Your task to perform on an android device: What's the news in Barbados? Image 0: 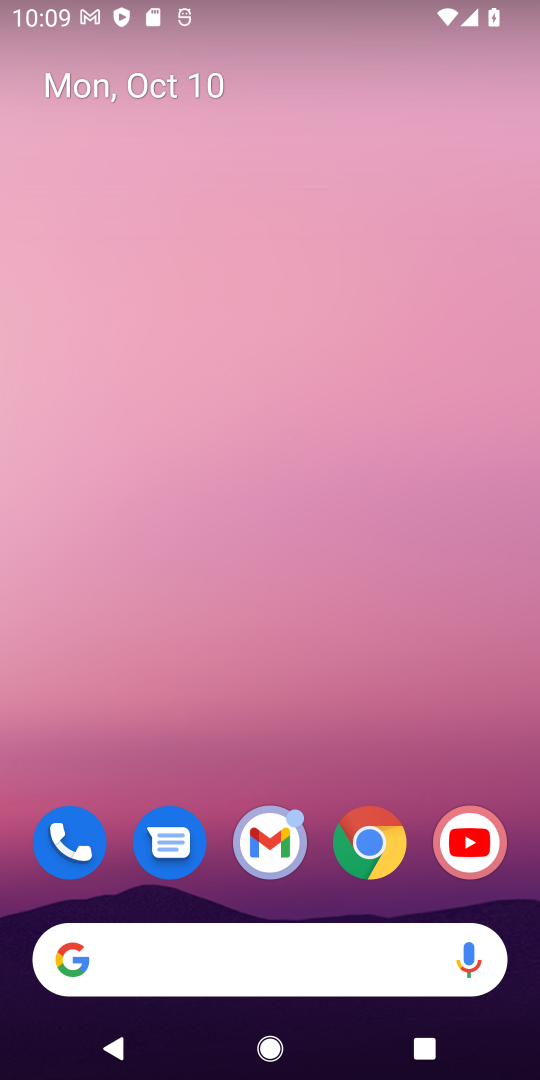
Step 0: click (192, 961)
Your task to perform on an android device: What's the news in Barbados? Image 1: 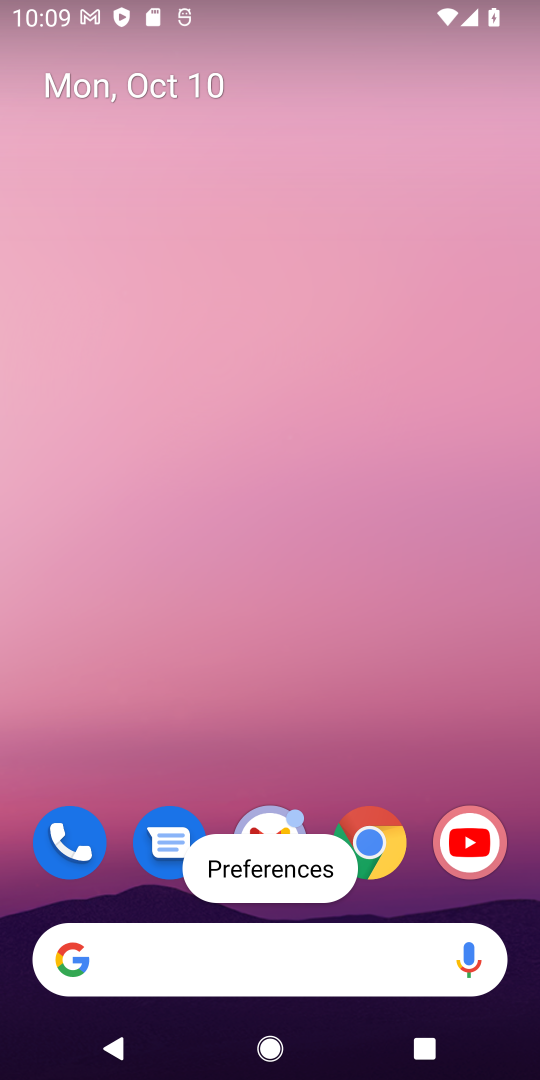
Step 1: click (192, 961)
Your task to perform on an android device: What's the news in Barbados? Image 2: 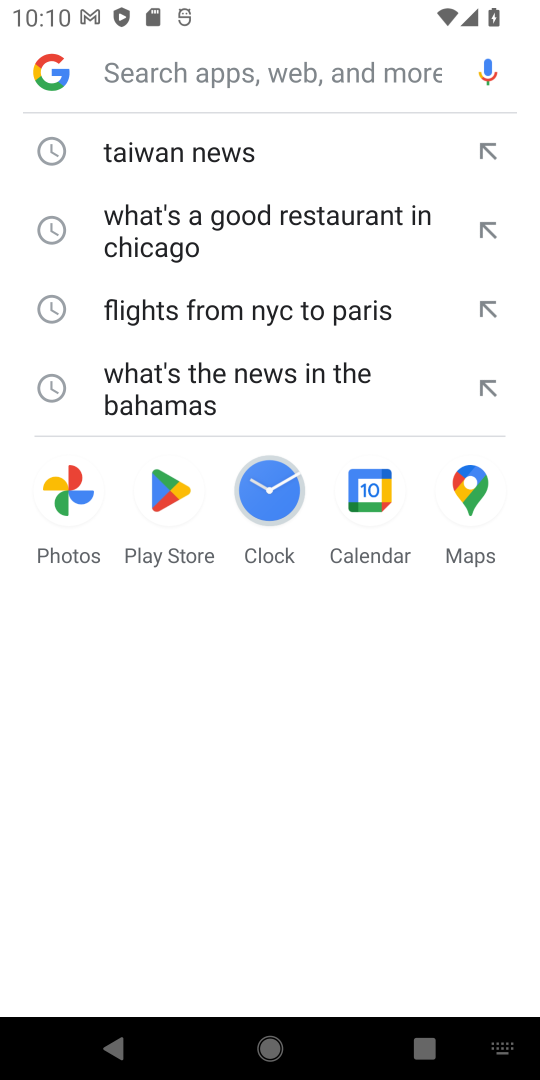
Step 2: type "barbados news"
Your task to perform on an android device: What's the news in Barbados? Image 3: 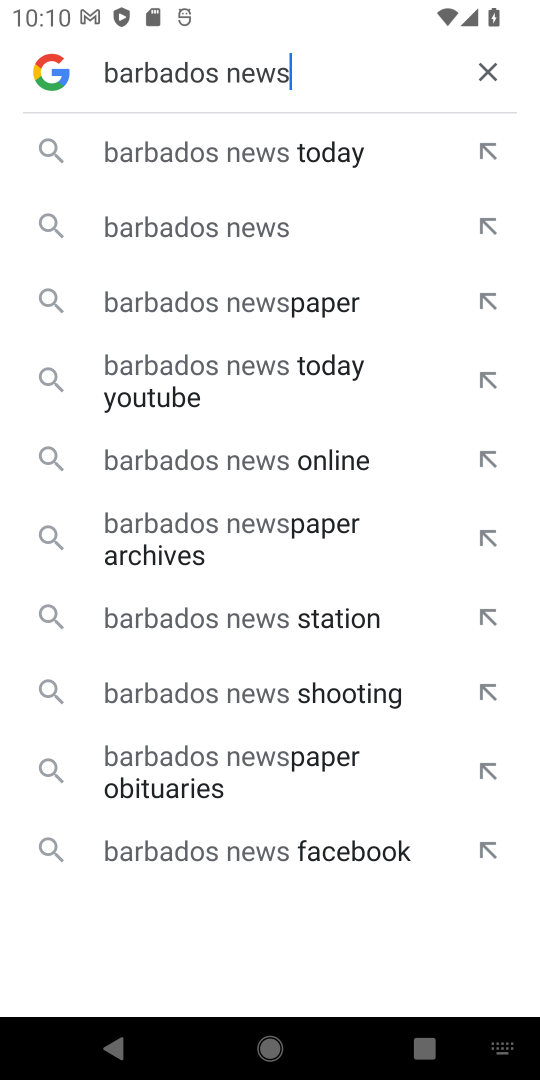
Step 3: click (183, 153)
Your task to perform on an android device: What's the news in Barbados? Image 4: 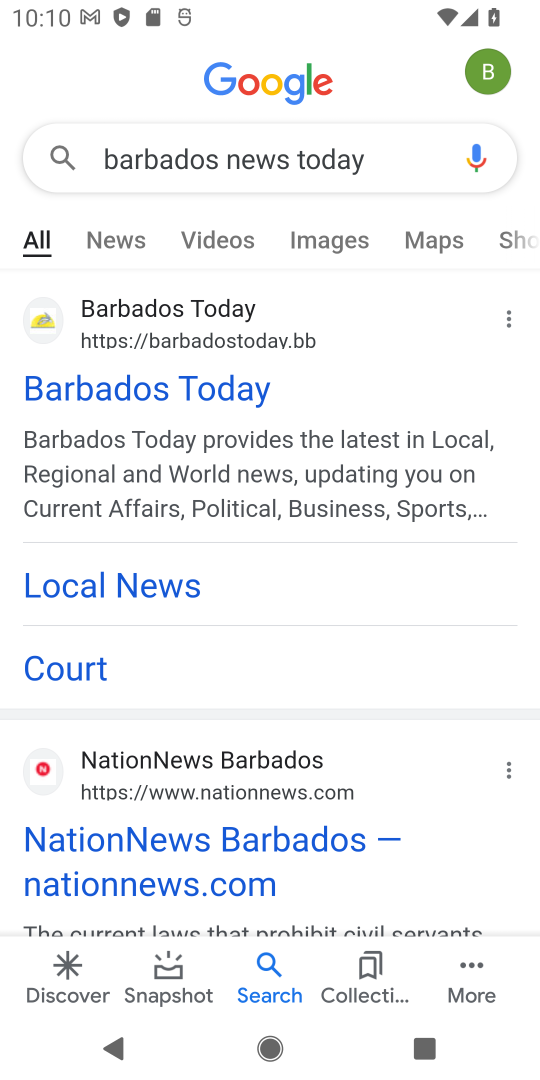
Step 4: click (106, 245)
Your task to perform on an android device: What's the news in Barbados? Image 5: 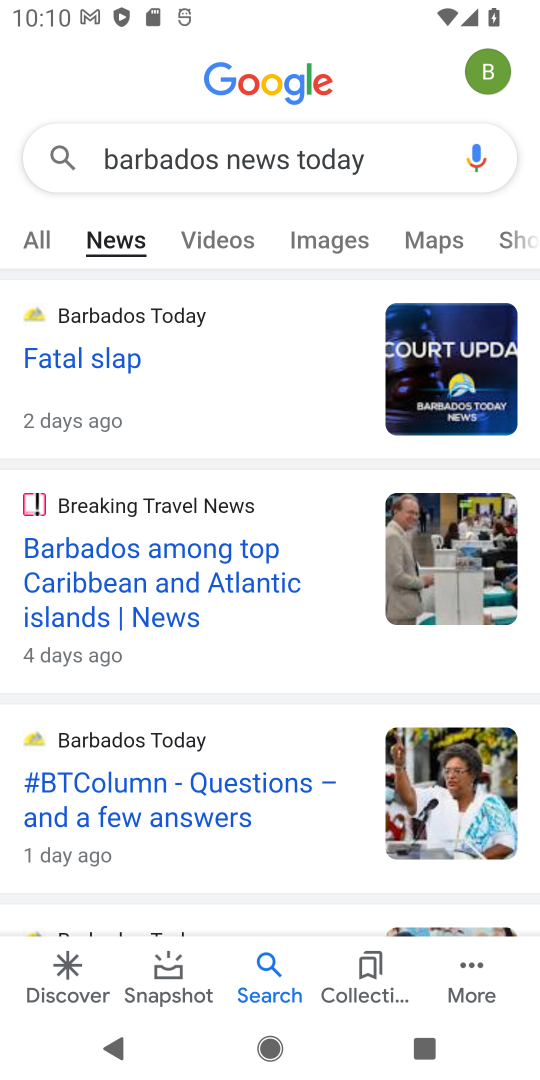
Step 5: click (160, 591)
Your task to perform on an android device: What's the news in Barbados? Image 6: 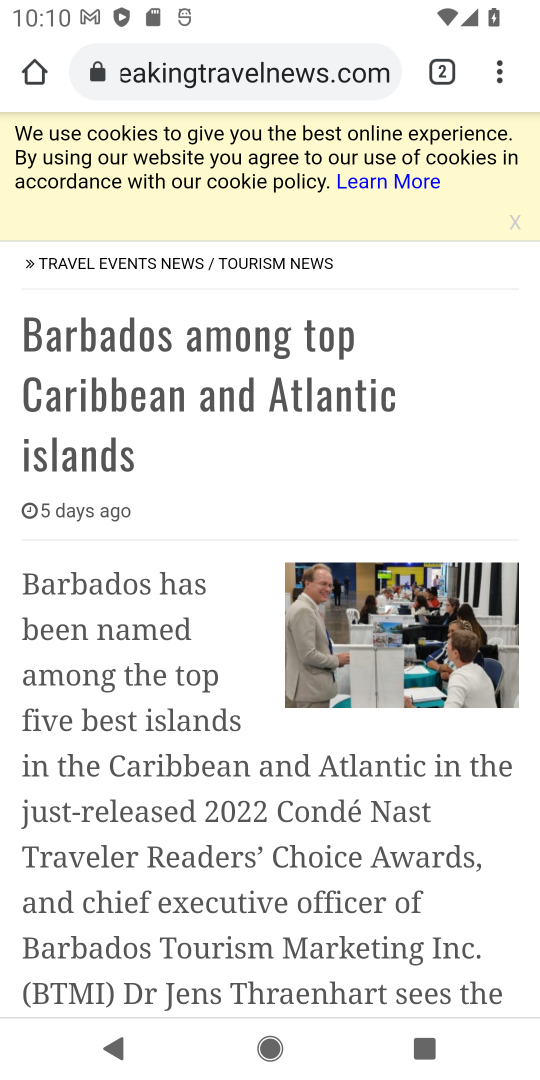
Step 6: task complete